Your task to perform on an android device: turn notification dots off Image 0: 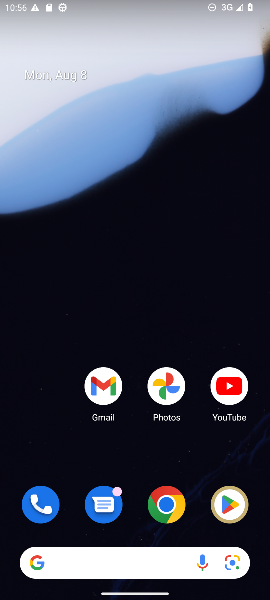
Step 0: drag from (135, 452) to (81, 7)
Your task to perform on an android device: turn notification dots off Image 1: 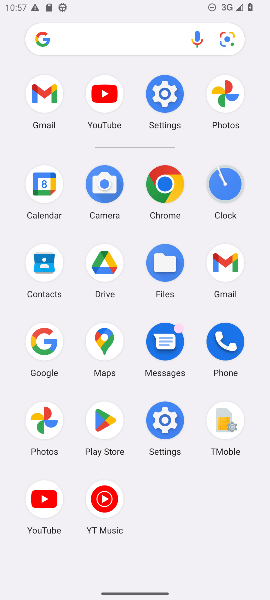
Step 1: click (174, 435)
Your task to perform on an android device: turn notification dots off Image 2: 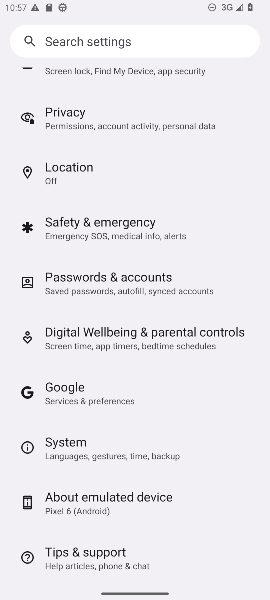
Step 2: drag from (172, 204) to (171, 400)
Your task to perform on an android device: turn notification dots off Image 3: 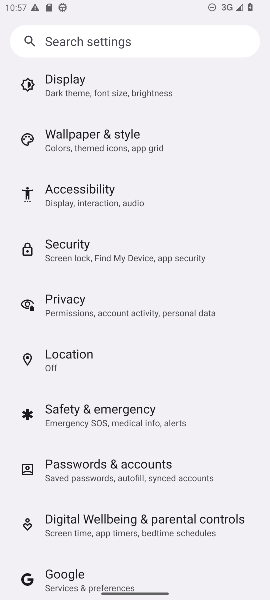
Step 3: drag from (100, 225) to (103, 343)
Your task to perform on an android device: turn notification dots off Image 4: 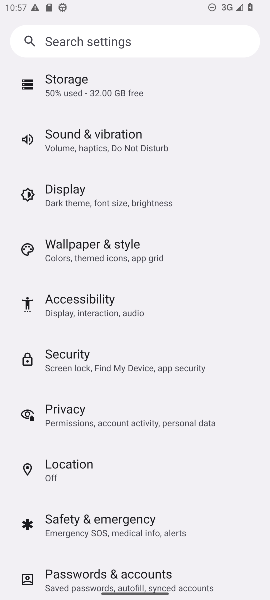
Step 4: drag from (125, 194) to (117, 429)
Your task to perform on an android device: turn notification dots off Image 5: 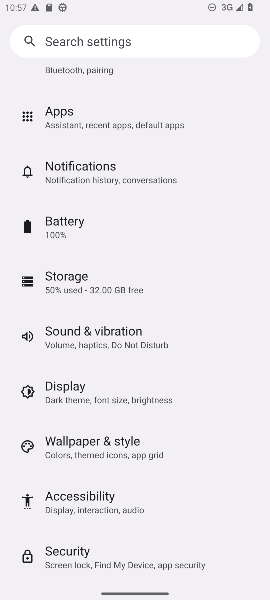
Step 5: click (99, 172)
Your task to perform on an android device: turn notification dots off Image 6: 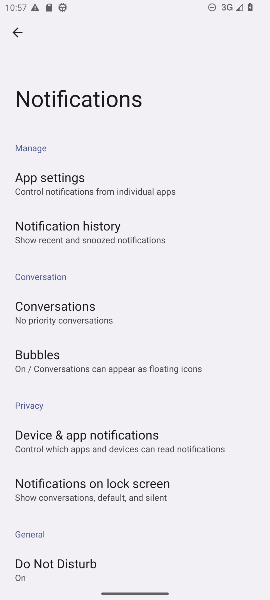
Step 6: drag from (122, 501) to (160, 247)
Your task to perform on an android device: turn notification dots off Image 7: 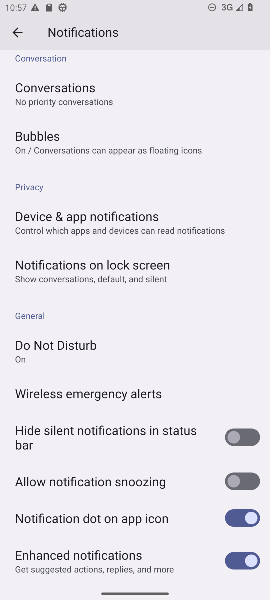
Step 7: click (231, 523)
Your task to perform on an android device: turn notification dots off Image 8: 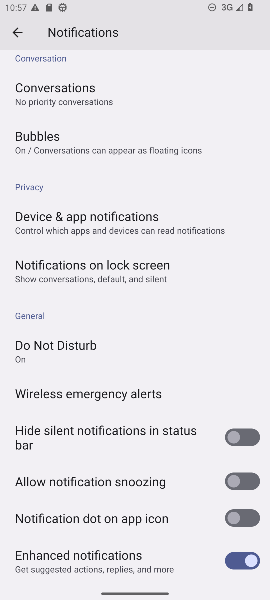
Step 8: task complete